Your task to perform on an android device: View the shopping cart on ebay. Add corsair k70 to the cart on ebay Image 0: 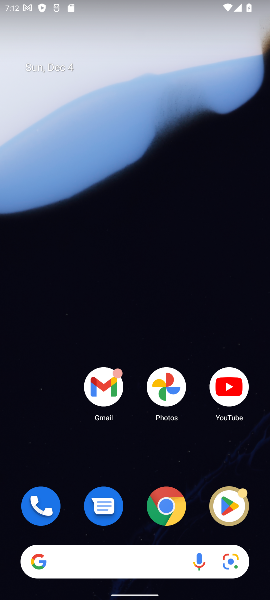
Step 0: click (163, 501)
Your task to perform on an android device: View the shopping cart on ebay. Add corsair k70 to the cart on ebay Image 1: 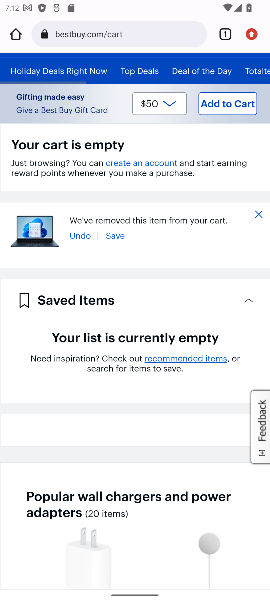
Step 1: click (85, 39)
Your task to perform on an android device: View the shopping cart on ebay. Add corsair k70 to the cart on ebay Image 2: 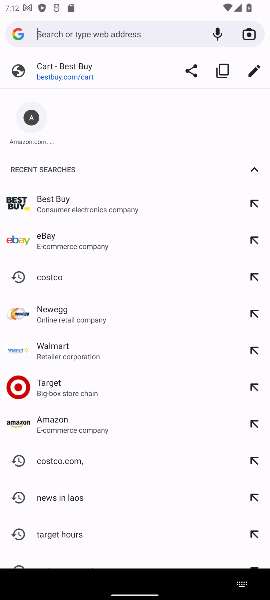
Step 2: click (85, 249)
Your task to perform on an android device: View the shopping cart on ebay. Add corsair k70 to the cart on ebay Image 3: 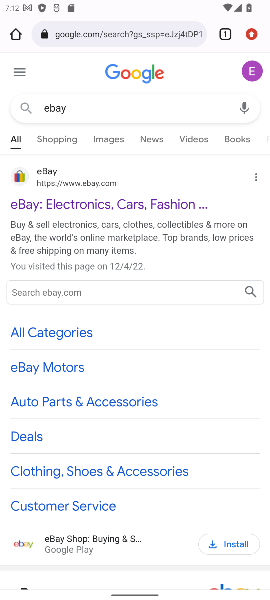
Step 3: click (62, 207)
Your task to perform on an android device: View the shopping cart on ebay. Add corsair k70 to the cart on ebay Image 4: 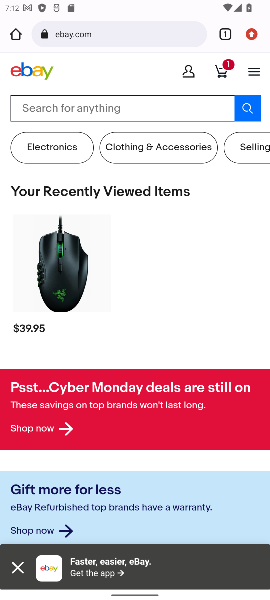
Step 4: click (227, 73)
Your task to perform on an android device: View the shopping cart on ebay. Add corsair k70 to the cart on ebay Image 5: 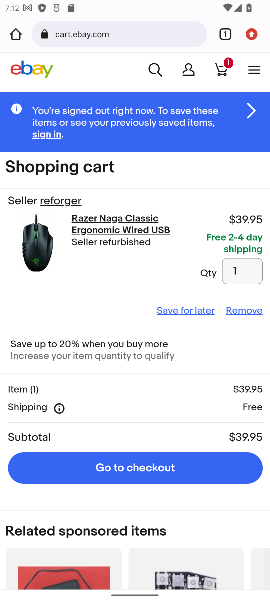
Step 5: click (157, 76)
Your task to perform on an android device: View the shopping cart on ebay. Add corsair k70 to the cart on ebay Image 6: 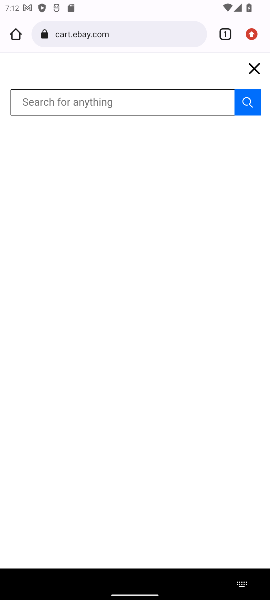
Step 6: type " corsair k70"
Your task to perform on an android device: View the shopping cart on ebay. Add corsair k70 to the cart on ebay Image 7: 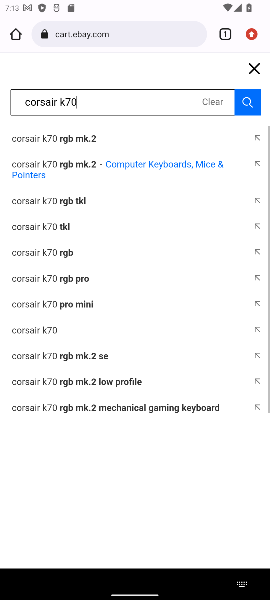
Step 7: click (241, 106)
Your task to perform on an android device: View the shopping cart on ebay. Add corsair k70 to the cart on ebay Image 8: 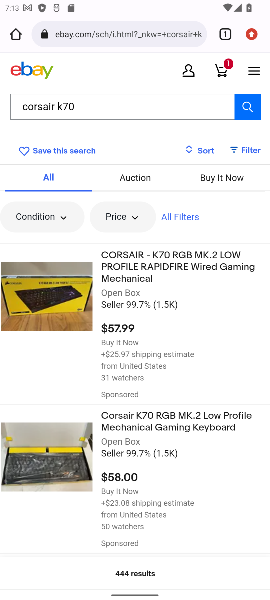
Step 8: click (151, 264)
Your task to perform on an android device: View the shopping cart on ebay. Add corsair k70 to the cart on ebay Image 9: 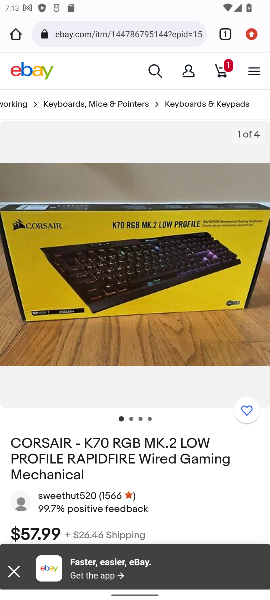
Step 9: drag from (174, 512) to (164, 119)
Your task to perform on an android device: View the shopping cart on ebay. Add corsair k70 to the cart on ebay Image 10: 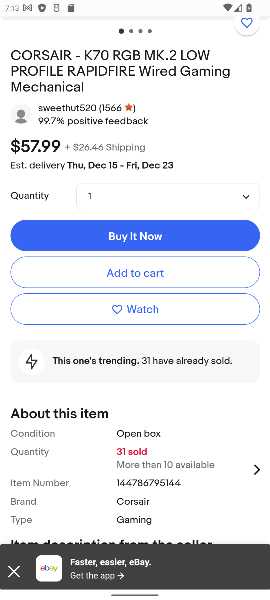
Step 10: click (155, 274)
Your task to perform on an android device: View the shopping cart on ebay. Add corsair k70 to the cart on ebay Image 11: 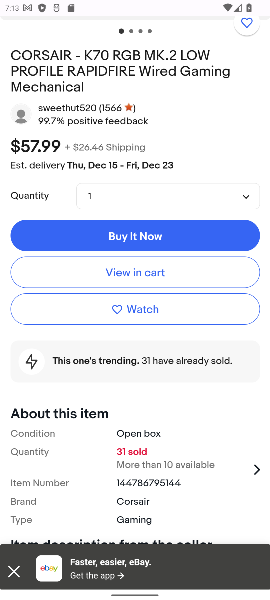
Step 11: task complete